Your task to perform on an android device: Search for asus zenbook on bestbuy.com, select the first entry, add it to the cart, then select checkout. Image 0: 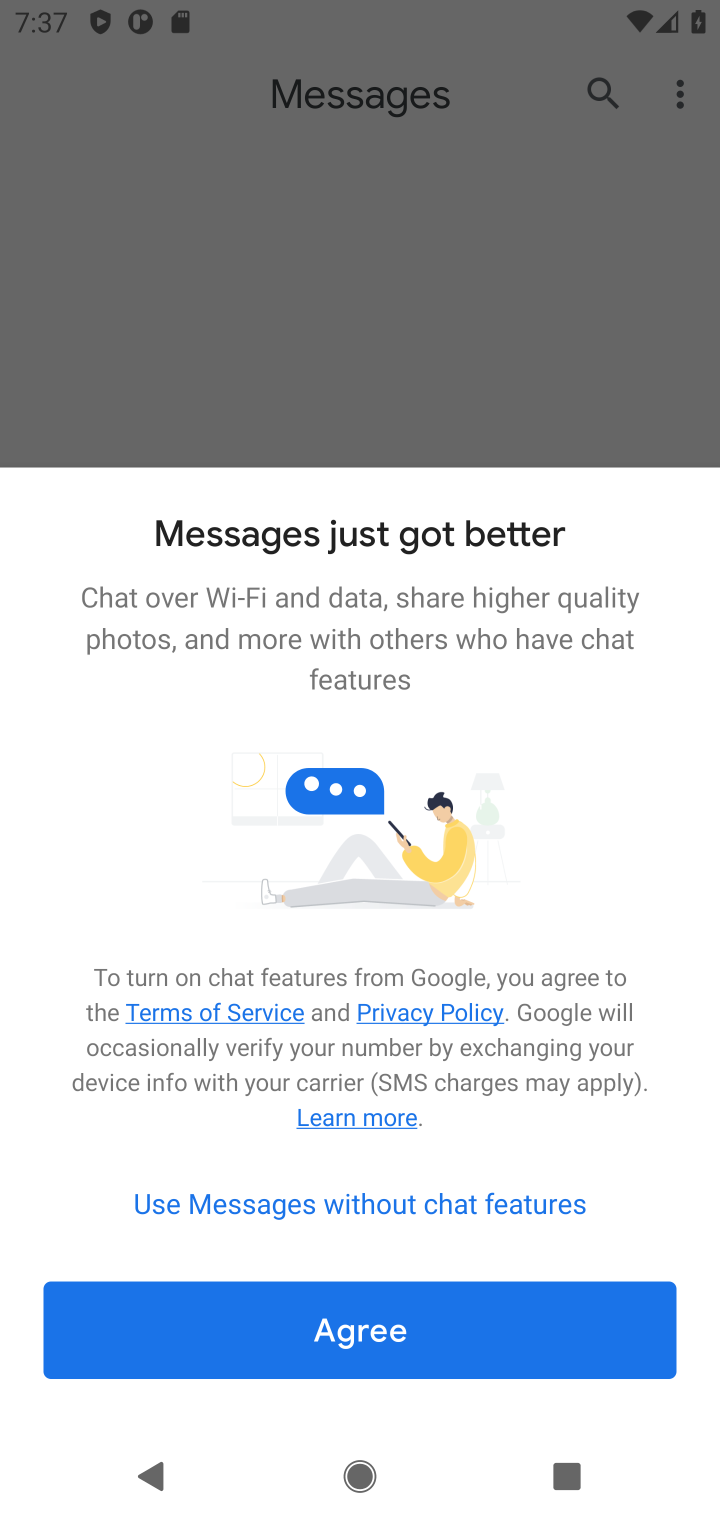
Step 0: press home button
Your task to perform on an android device: Search for asus zenbook on bestbuy.com, select the first entry, add it to the cart, then select checkout. Image 1: 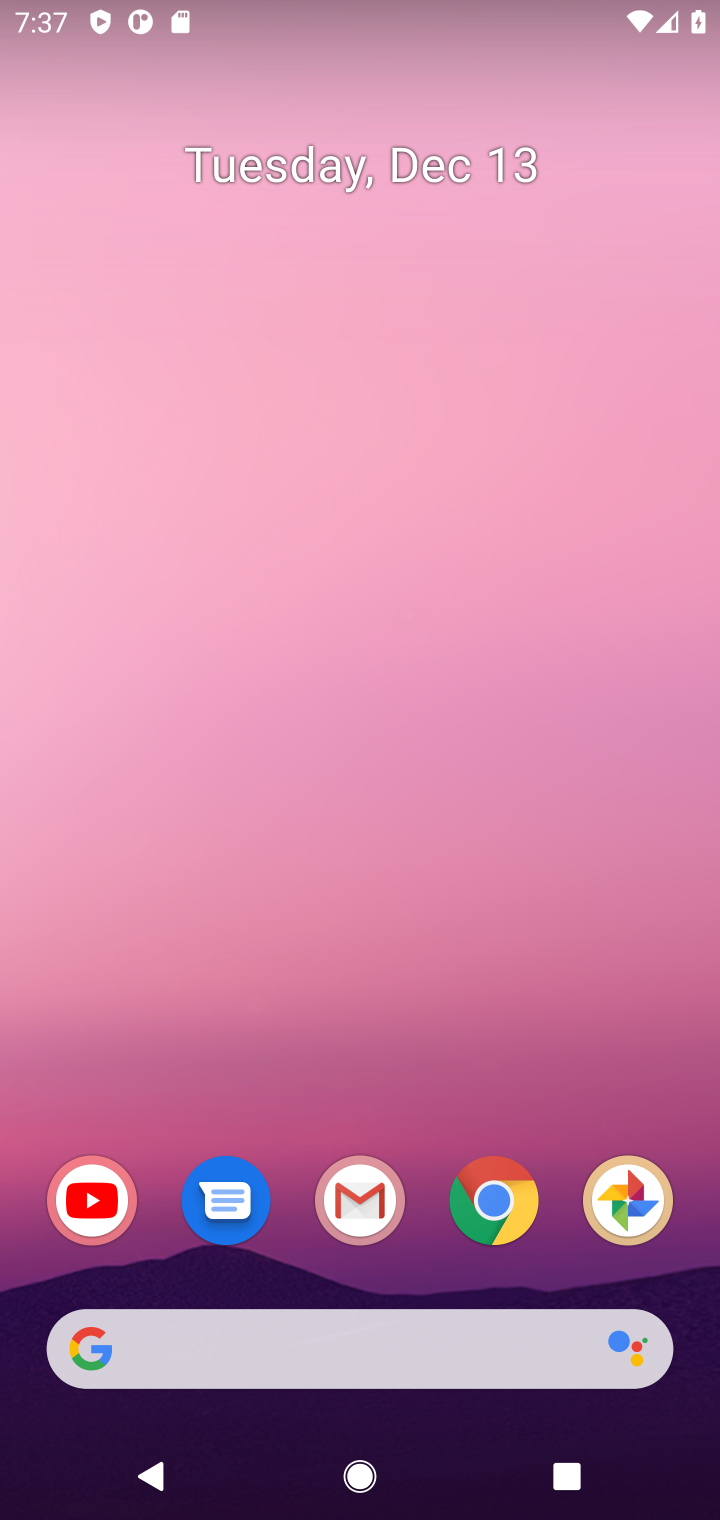
Step 1: click (361, 1329)
Your task to perform on an android device: Search for asus zenbook on bestbuy.com, select the first entry, add it to the cart, then select checkout. Image 2: 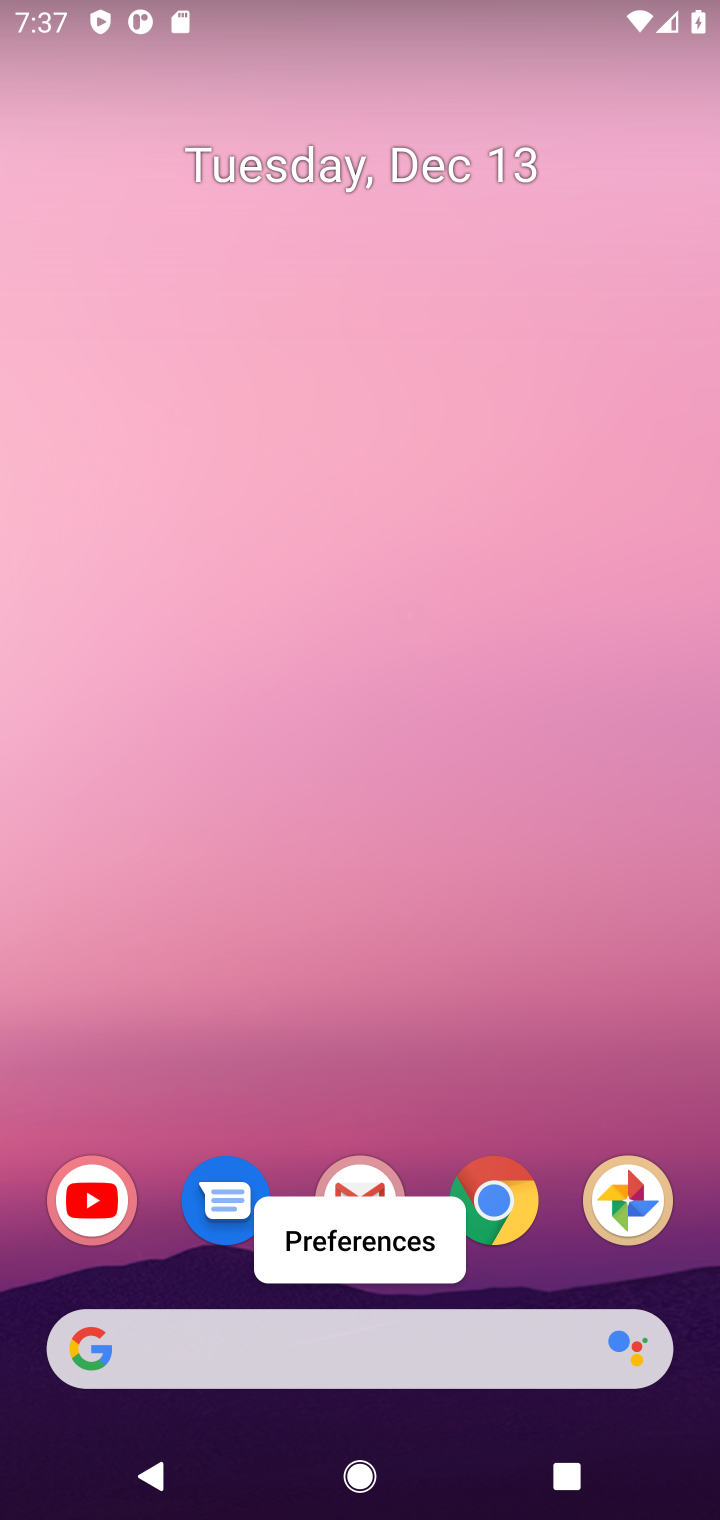
Step 2: click (317, 1343)
Your task to perform on an android device: Search for asus zenbook on bestbuy.com, select the first entry, add it to the cart, then select checkout. Image 3: 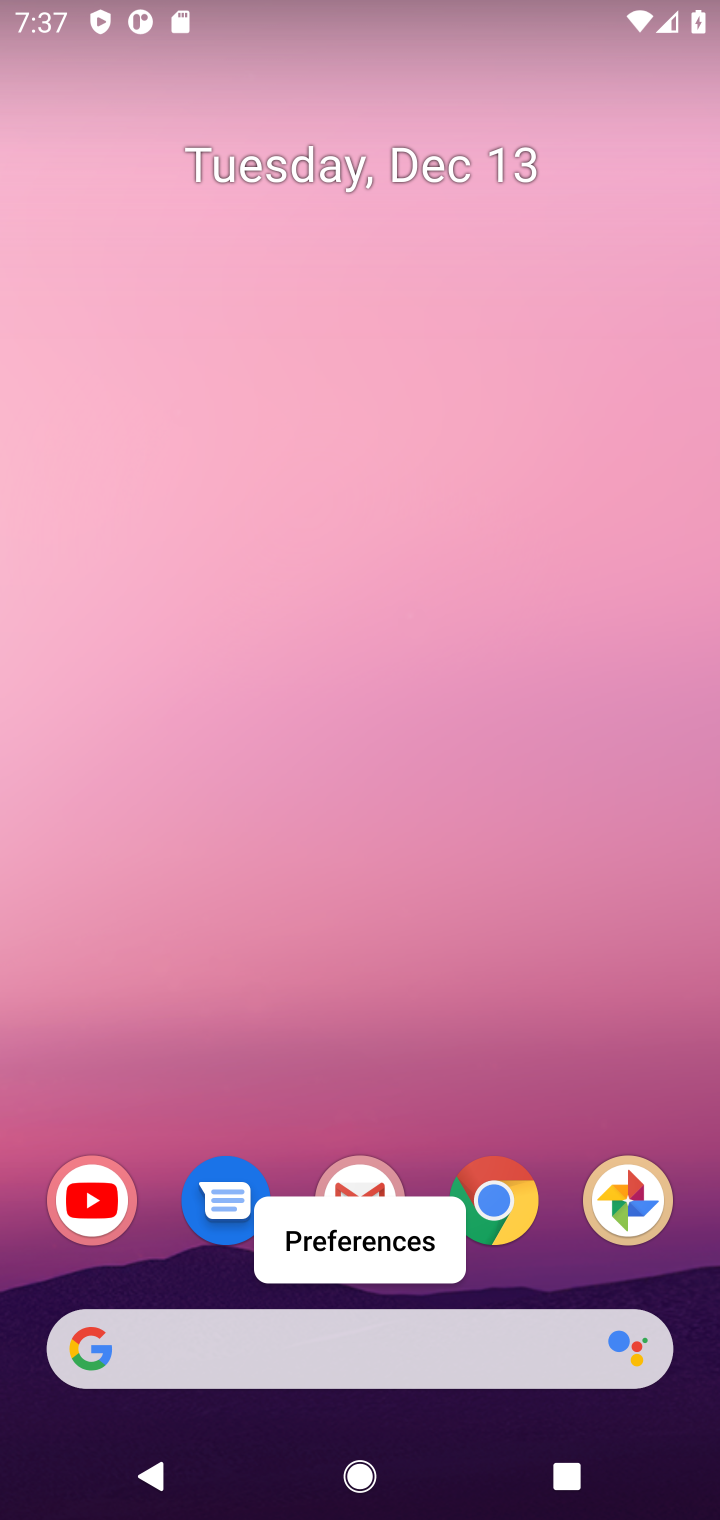
Step 3: click (297, 1354)
Your task to perform on an android device: Search for asus zenbook on bestbuy.com, select the first entry, add it to the cart, then select checkout. Image 4: 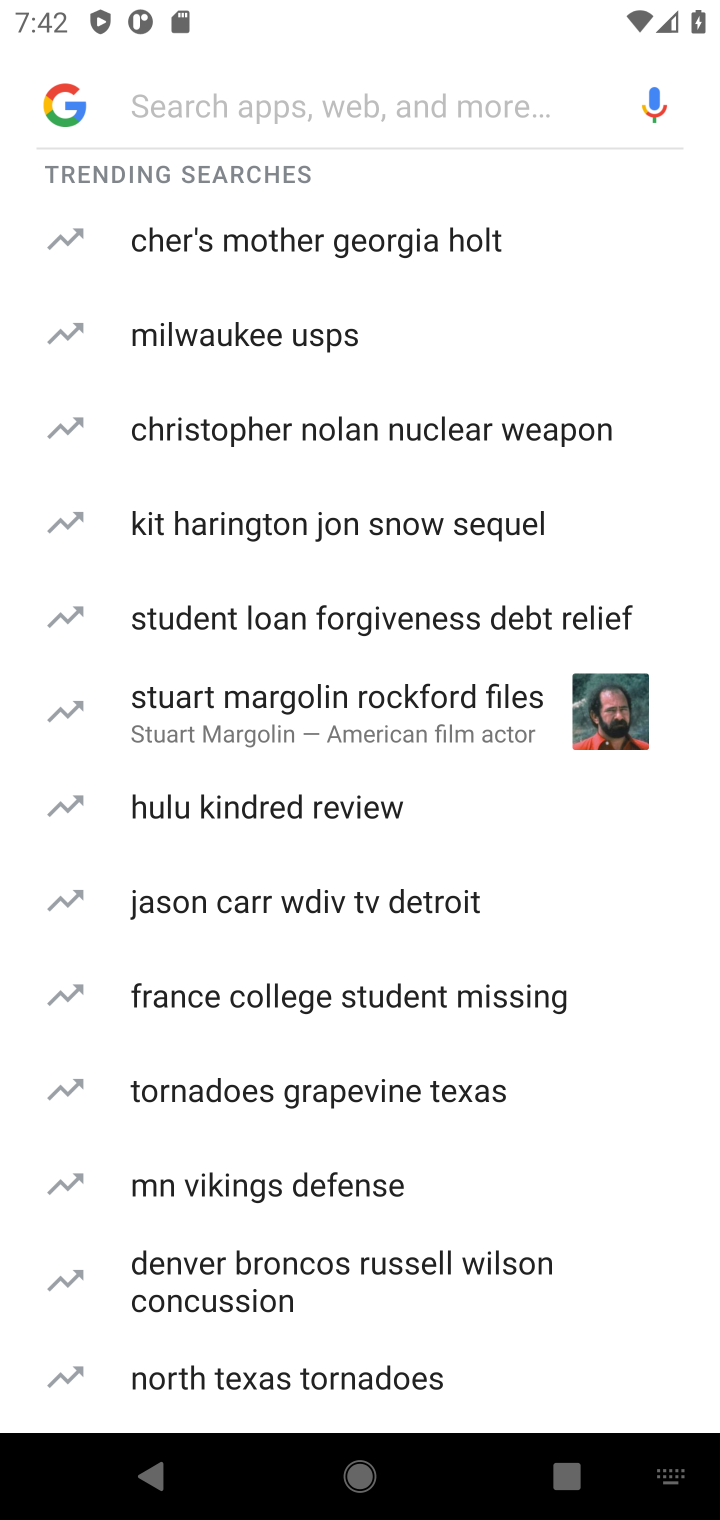
Step 4: type "bestbuy.com"
Your task to perform on an android device: Search for asus zenbook on bestbuy.com, select the first entry, add it to the cart, then select checkout. Image 5: 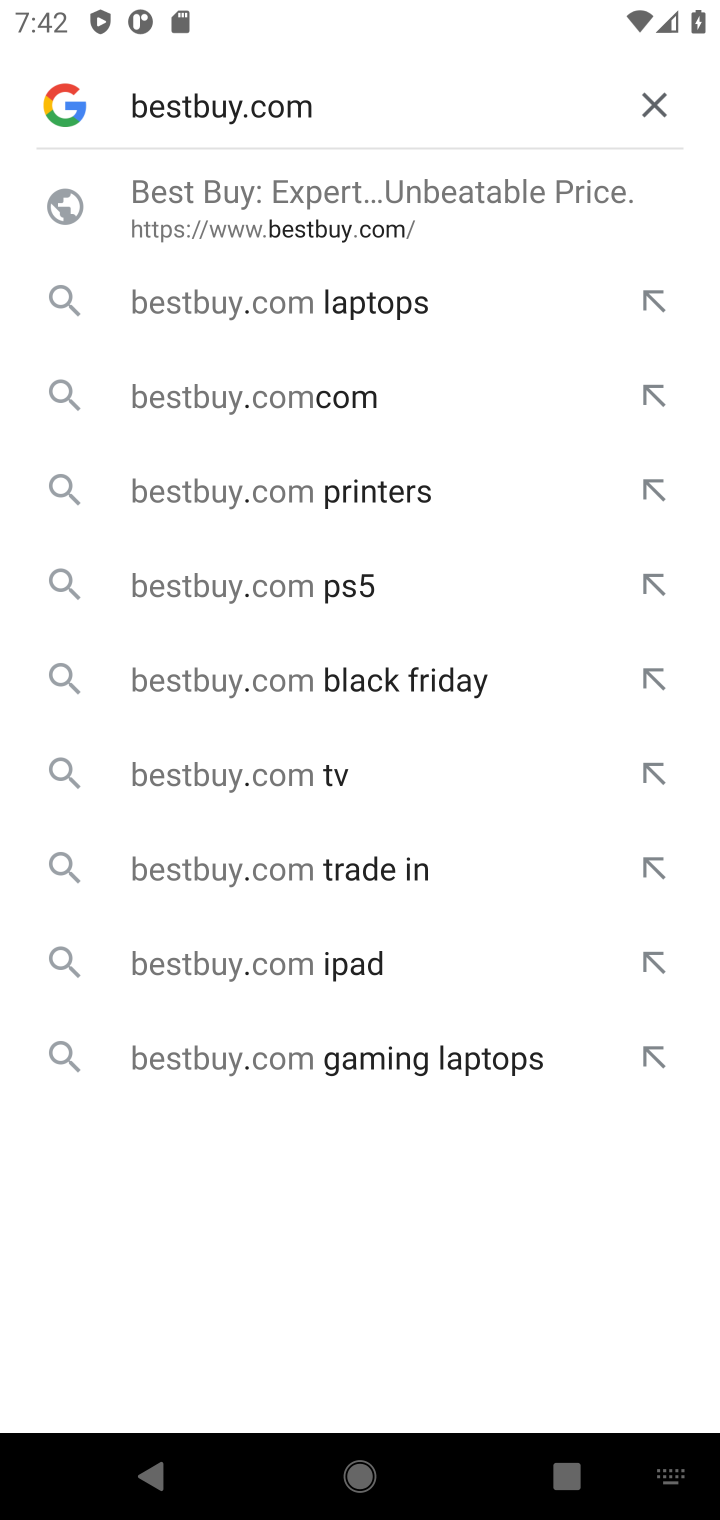
Step 5: click (292, 203)
Your task to perform on an android device: Search for asus zenbook on bestbuy.com, select the first entry, add it to the cart, then select checkout. Image 6: 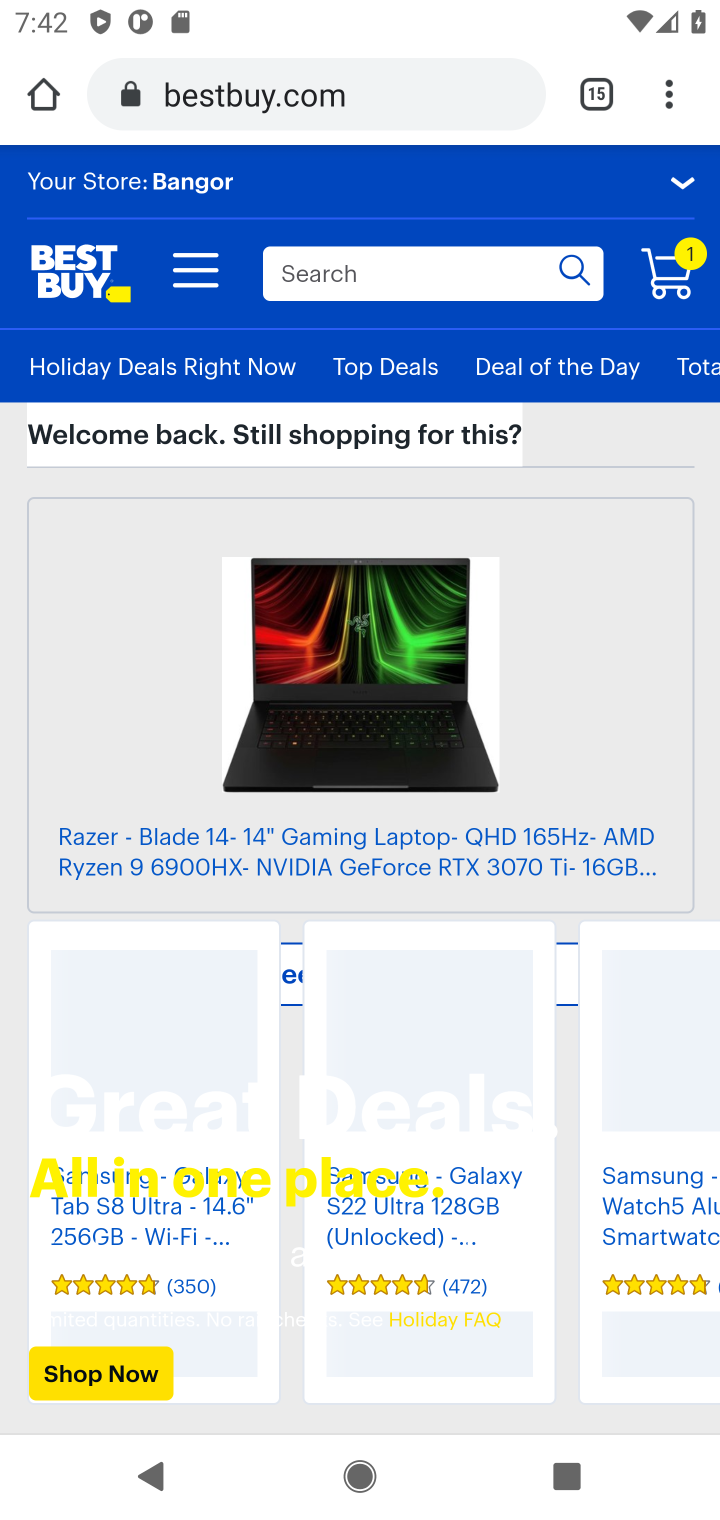
Step 6: click (511, 278)
Your task to perform on an android device: Search for asus zenbook on bestbuy.com, select the first entry, add it to the cart, then select checkout. Image 7: 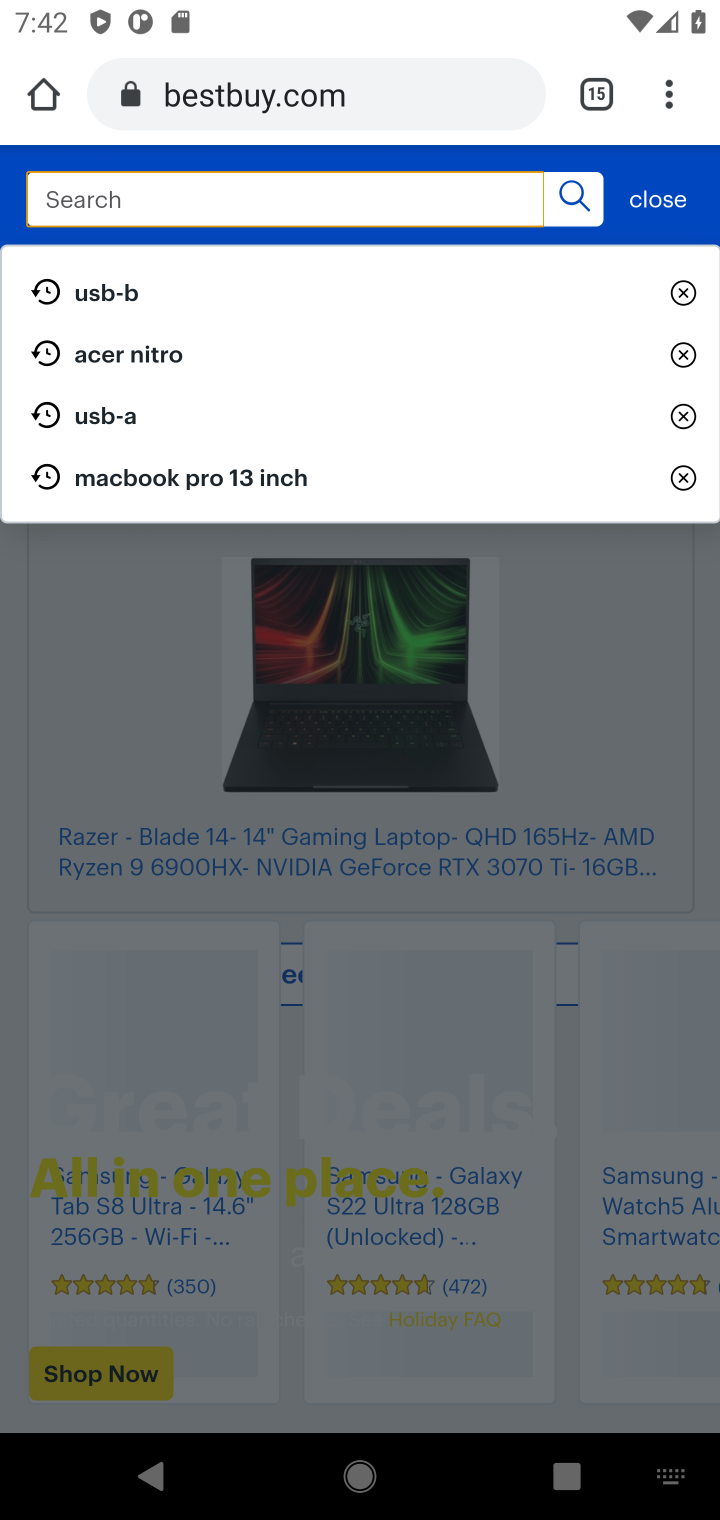
Step 7: type "asus zenbook"
Your task to perform on an android device: Search for asus zenbook on bestbuy.com, select the first entry, add it to the cart, then select checkout. Image 8: 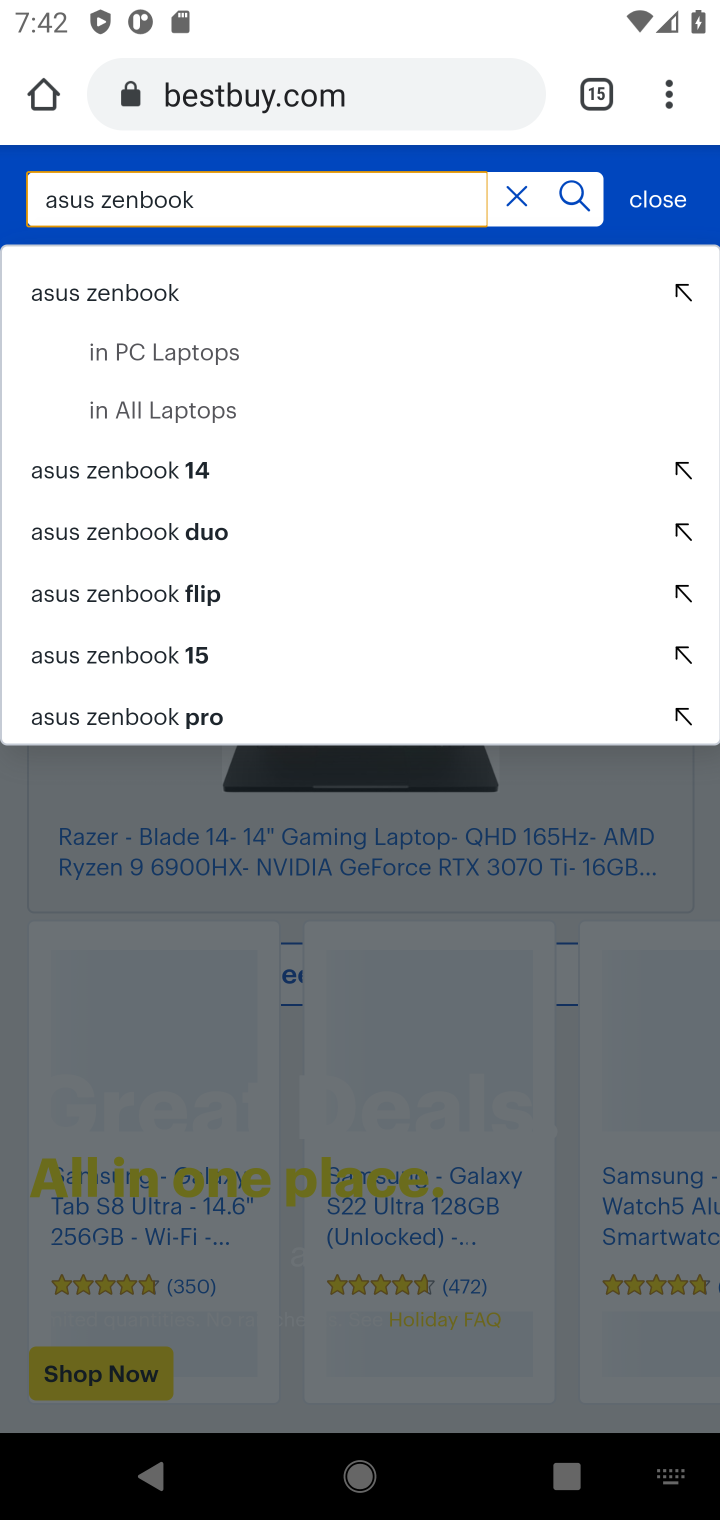
Step 8: click (111, 281)
Your task to perform on an android device: Search for asus zenbook on bestbuy.com, select the first entry, add it to the cart, then select checkout. Image 9: 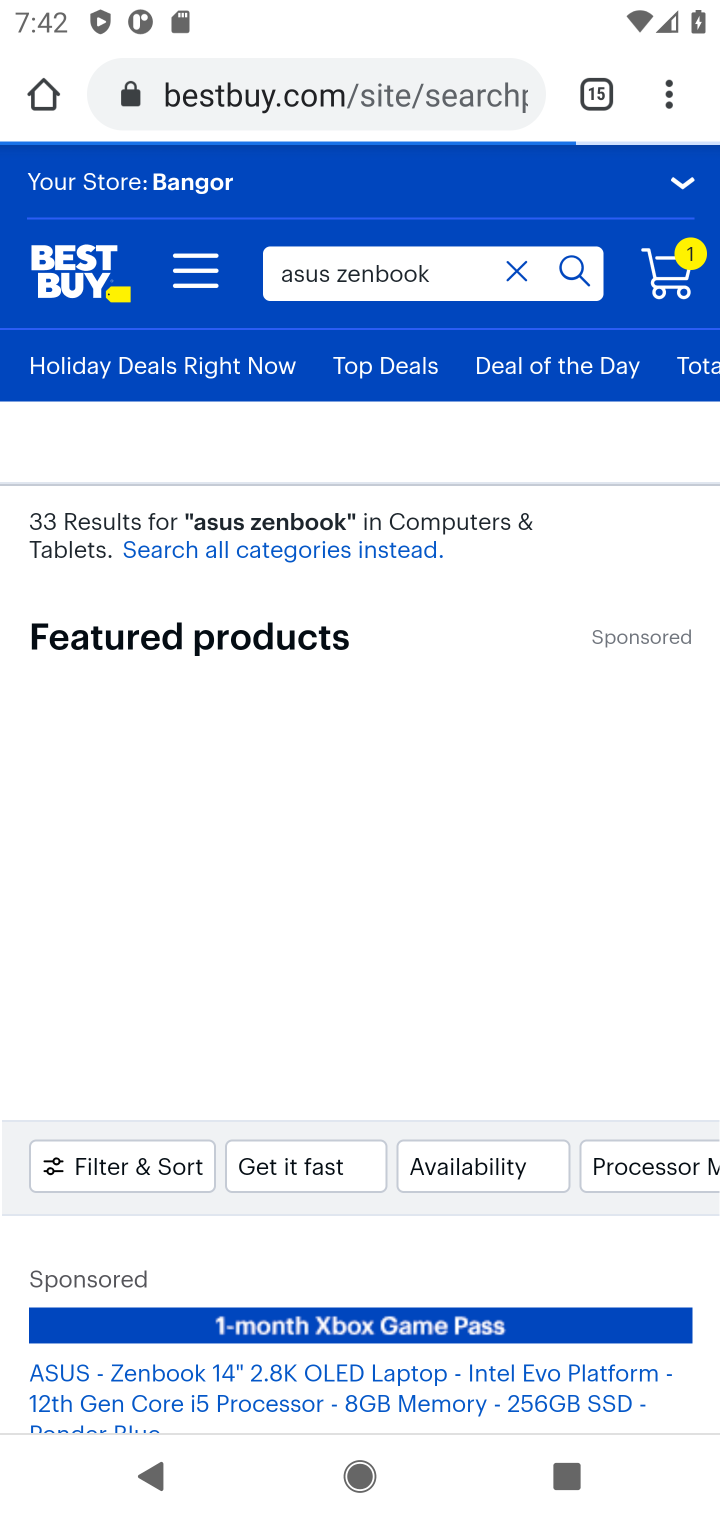
Step 9: click (581, 191)
Your task to perform on an android device: Search for asus zenbook on bestbuy.com, select the first entry, add it to the cart, then select checkout. Image 10: 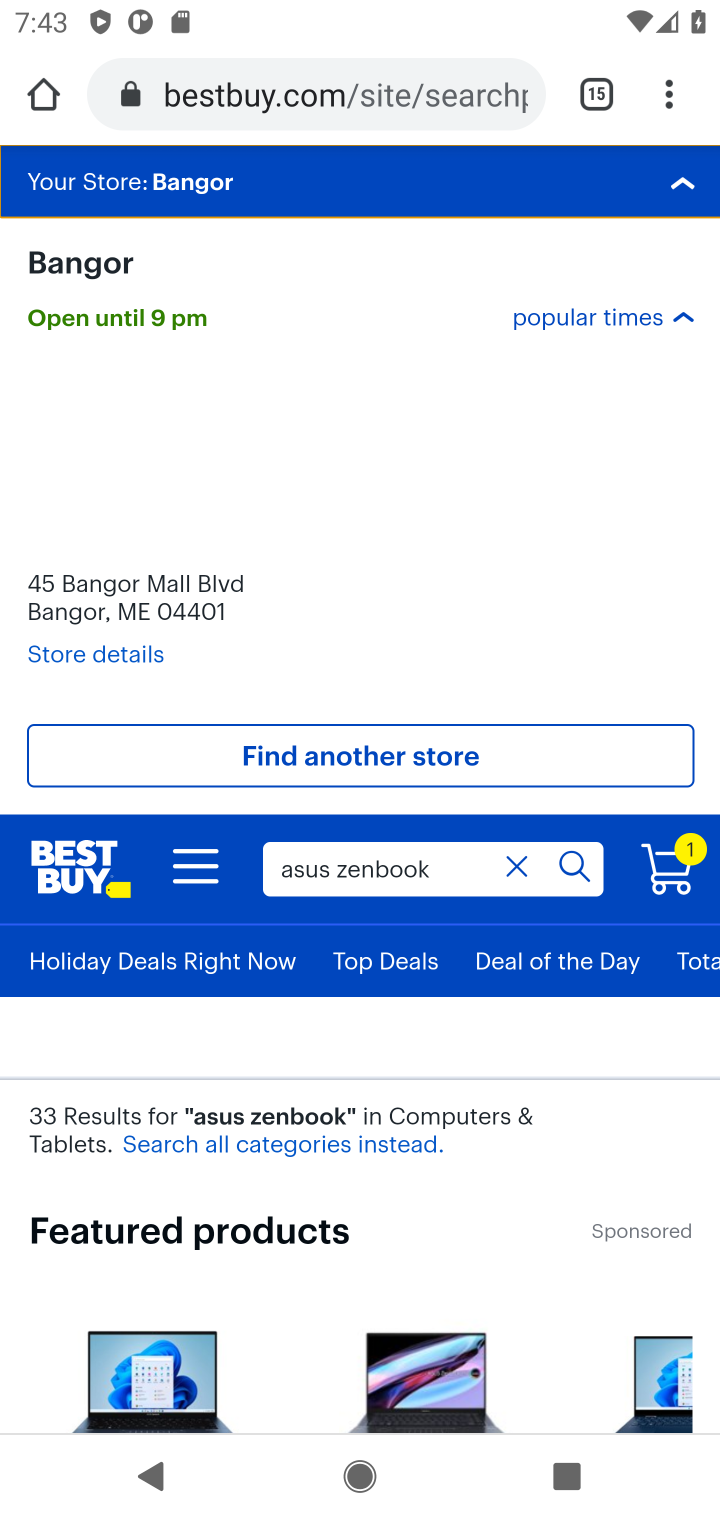
Step 10: click (106, 1351)
Your task to perform on an android device: Search for asus zenbook on bestbuy.com, select the first entry, add it to the cart, then select checkout. Image 11: 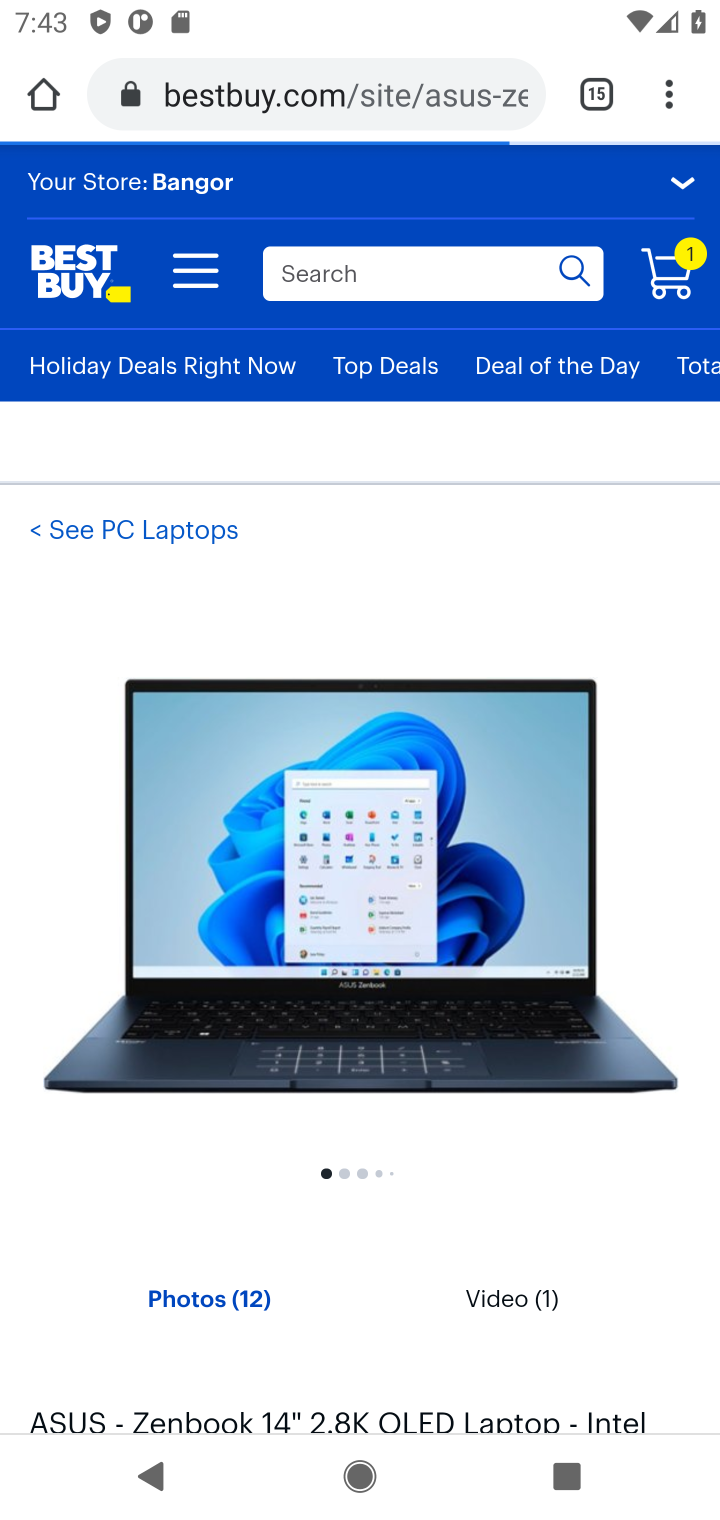
Step 11: click (269, 1316)
Your task to perform on an android device: Search for asus zenbook on bestbuy.com, select the first entry, add it to the cart, then select checkout. Image 12: 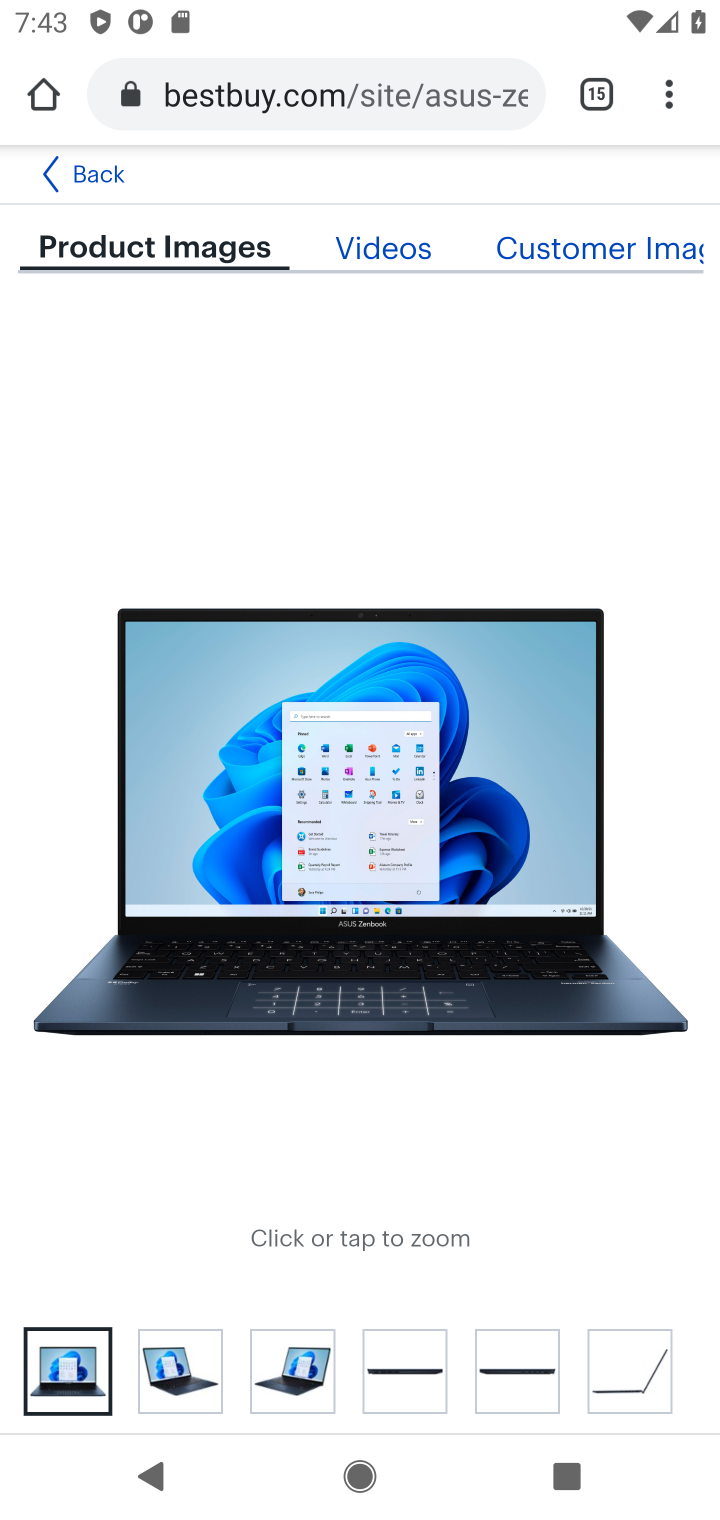
Step 12: click (63, 169)
Your task to perform on an android device: Search for asus zenbook on bestbuy.com, select the first entry, add it to the cart, then select checkout. Image 13: 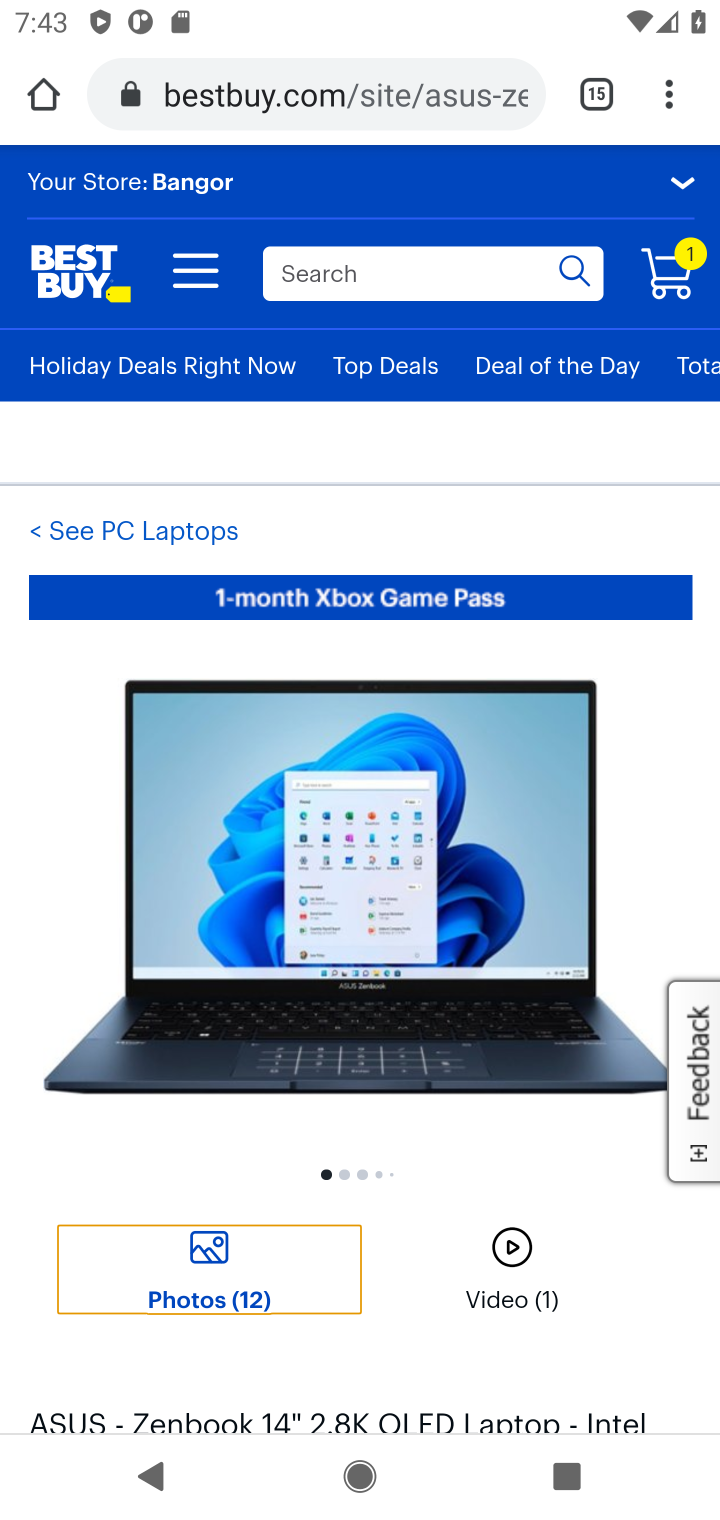
Step 13: drag from (383, 1034) to (343, 450)
Your task to perform on an android device: Search for asus zenbook on bestbuy.com, select the first entry, add it to the cart, then select checkout. Image 14: 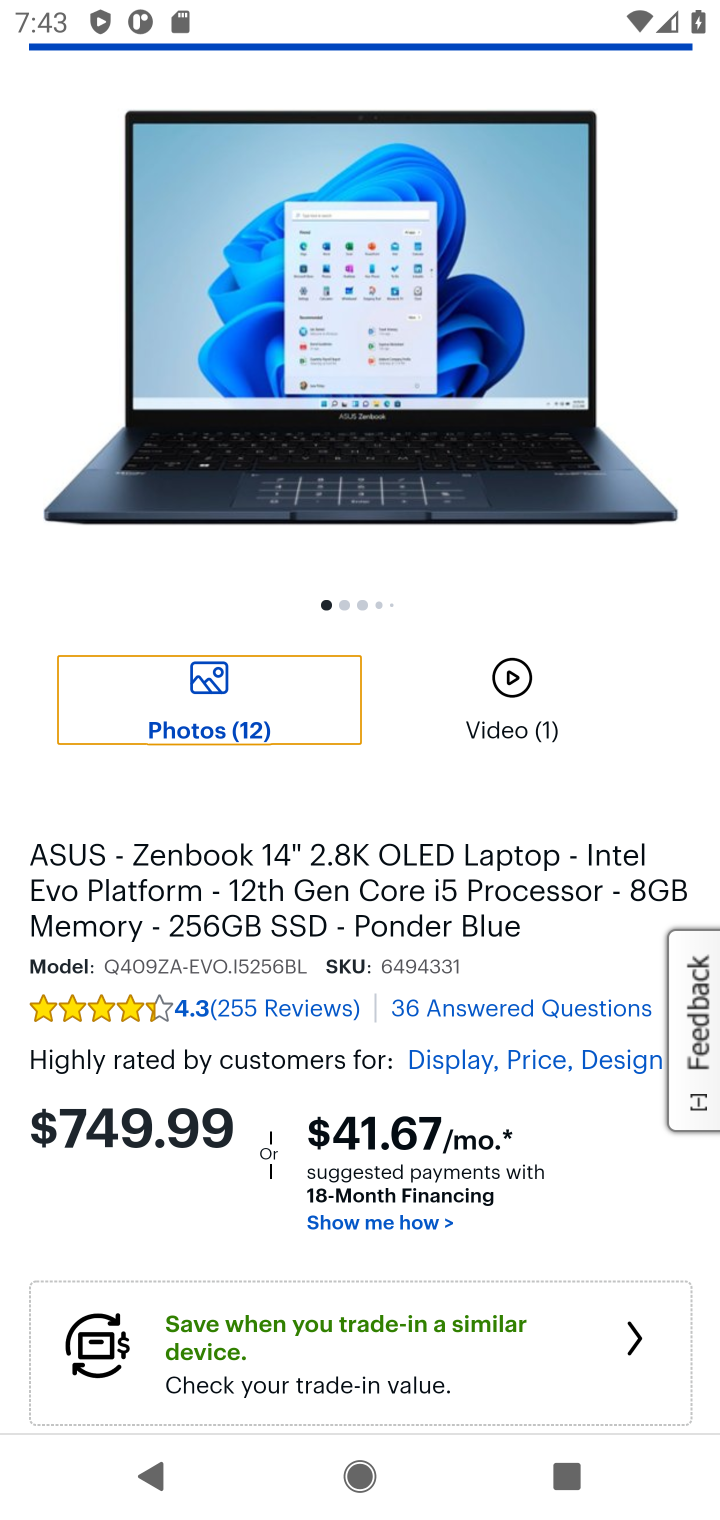
Step 14: drag from (553, 1249) to (415, 581)
Your task to perform on an android device: Search for asus zenbook on bestbuy.com, select the first entry, add it to the cart, then select checkout. Image 15: 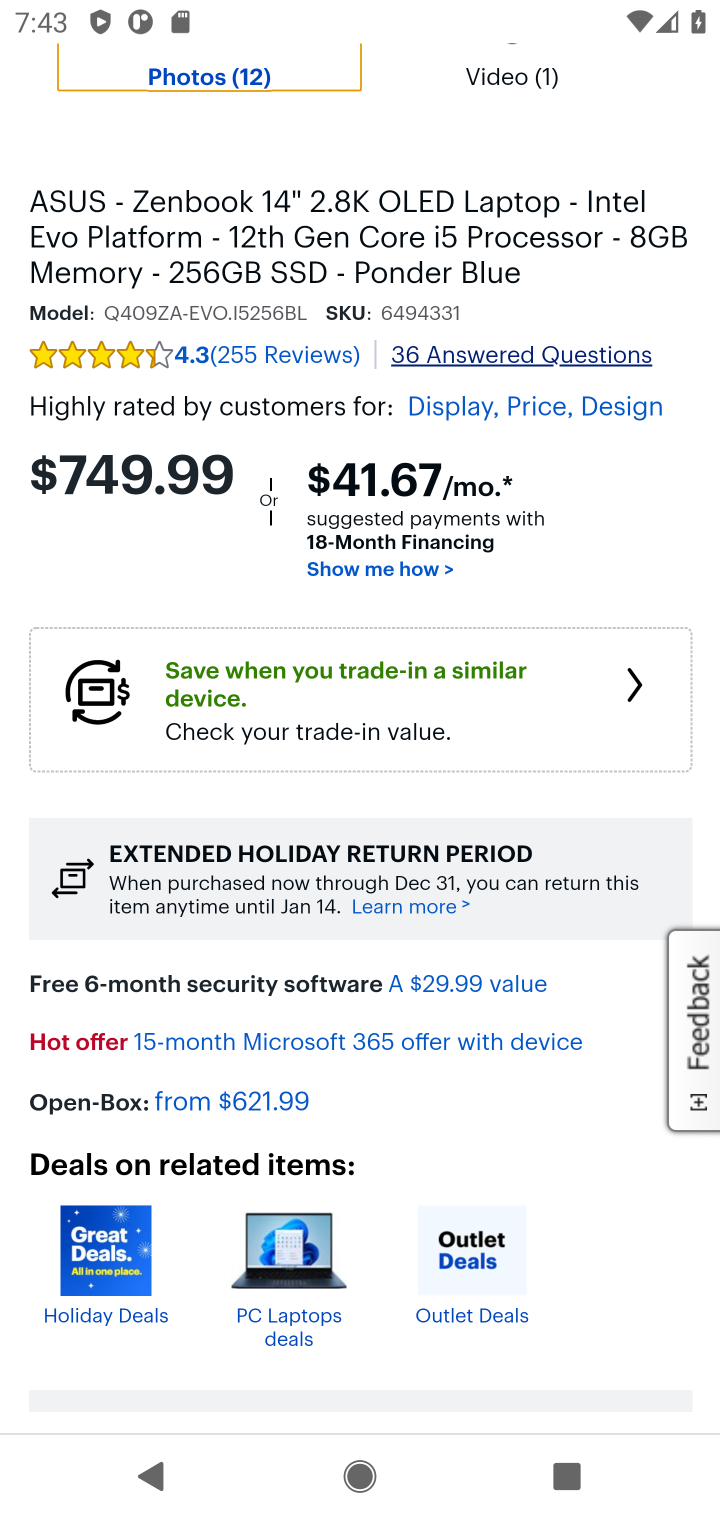
Step 15: drag from (519, 1073) to (476, 769)
Your task to perform on an android device: Search for asus zenbook on bestbuy.com, select the first entry, add it to the cart, then select checkout. Image 16: 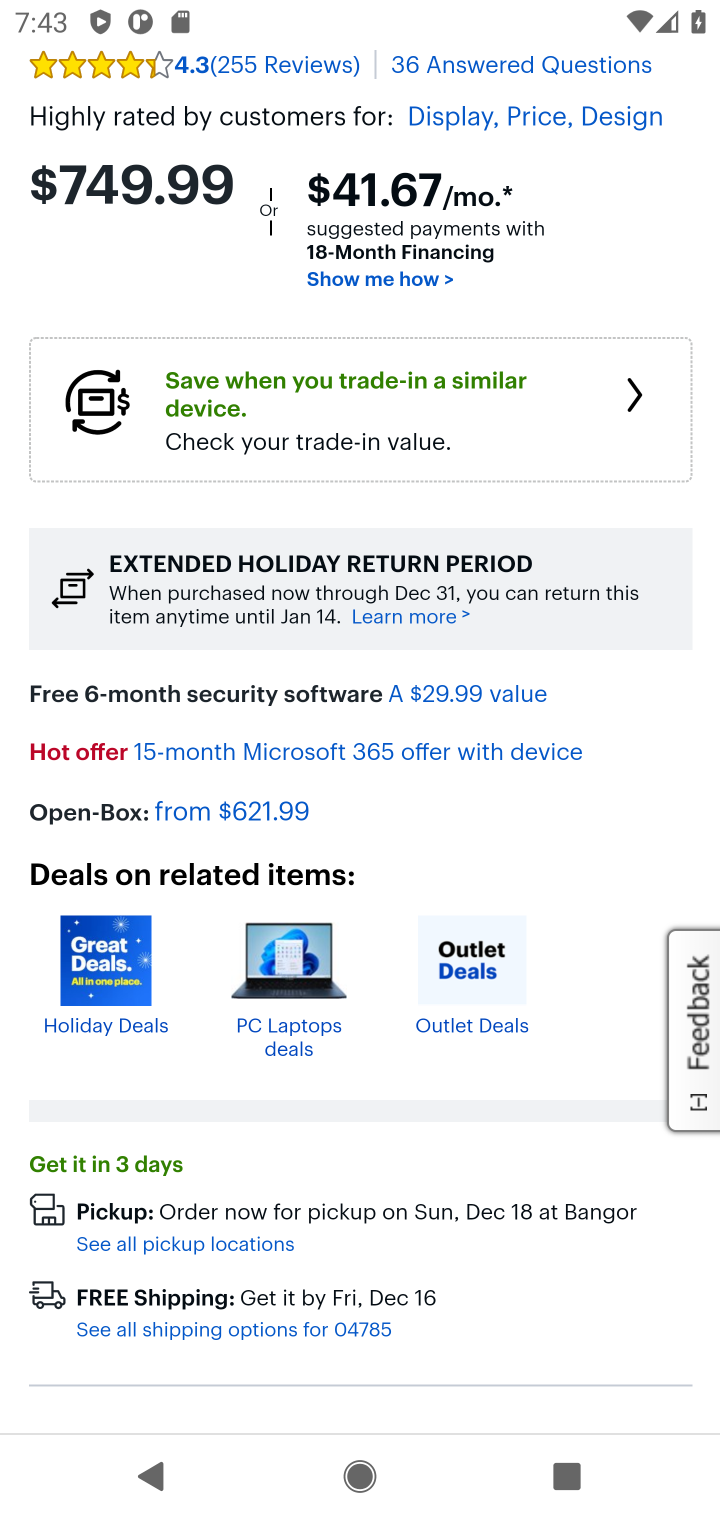
Step 16: drag from (436, 1041) to (389, 587)
Your task to perform on an android device: Search for asus zenbook on bestbuy.com, select the first entry, add it to the cart, then select checkout. Image 17: 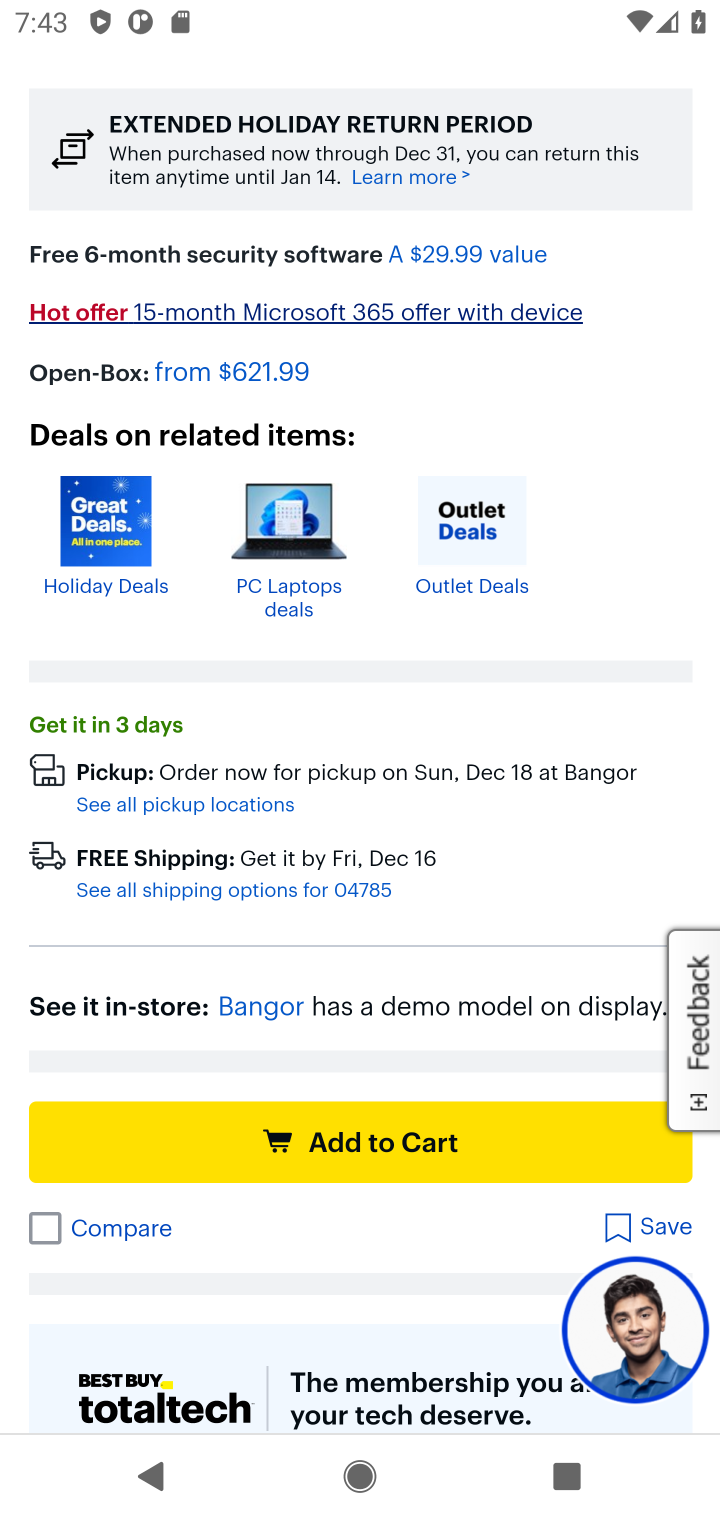
Step 17: click (341, 1123)
Your task to perform on an android device: Search for asus zenbook on bestbuy.com, select the first entry, add it to the cart, then select checkout. Image 18: 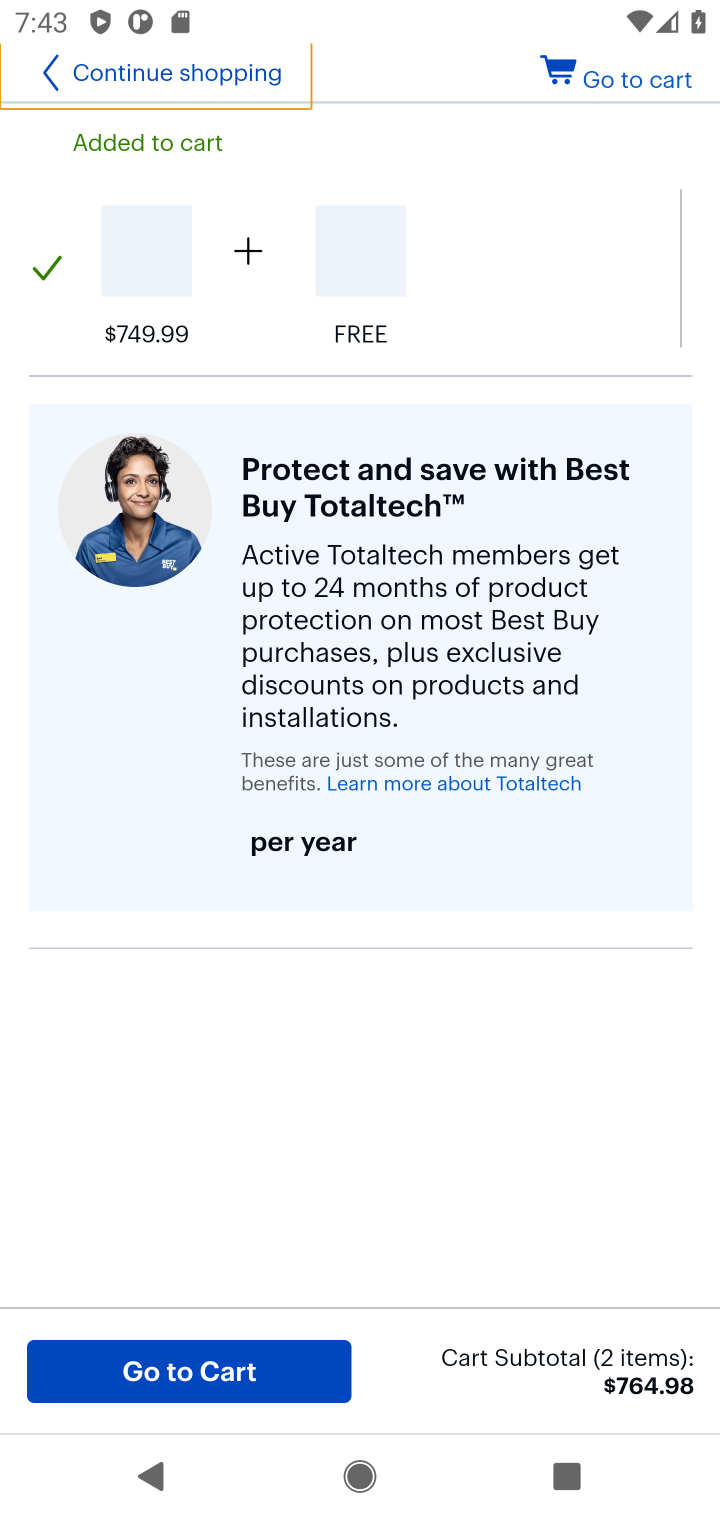
Step 18: drag from (601, 604) to (599, 1244)
Your task to perform on an android device: Search for asus zenbook on bestbuy.com, select the first entry, add it to the cart, then select checkout. Image 19: 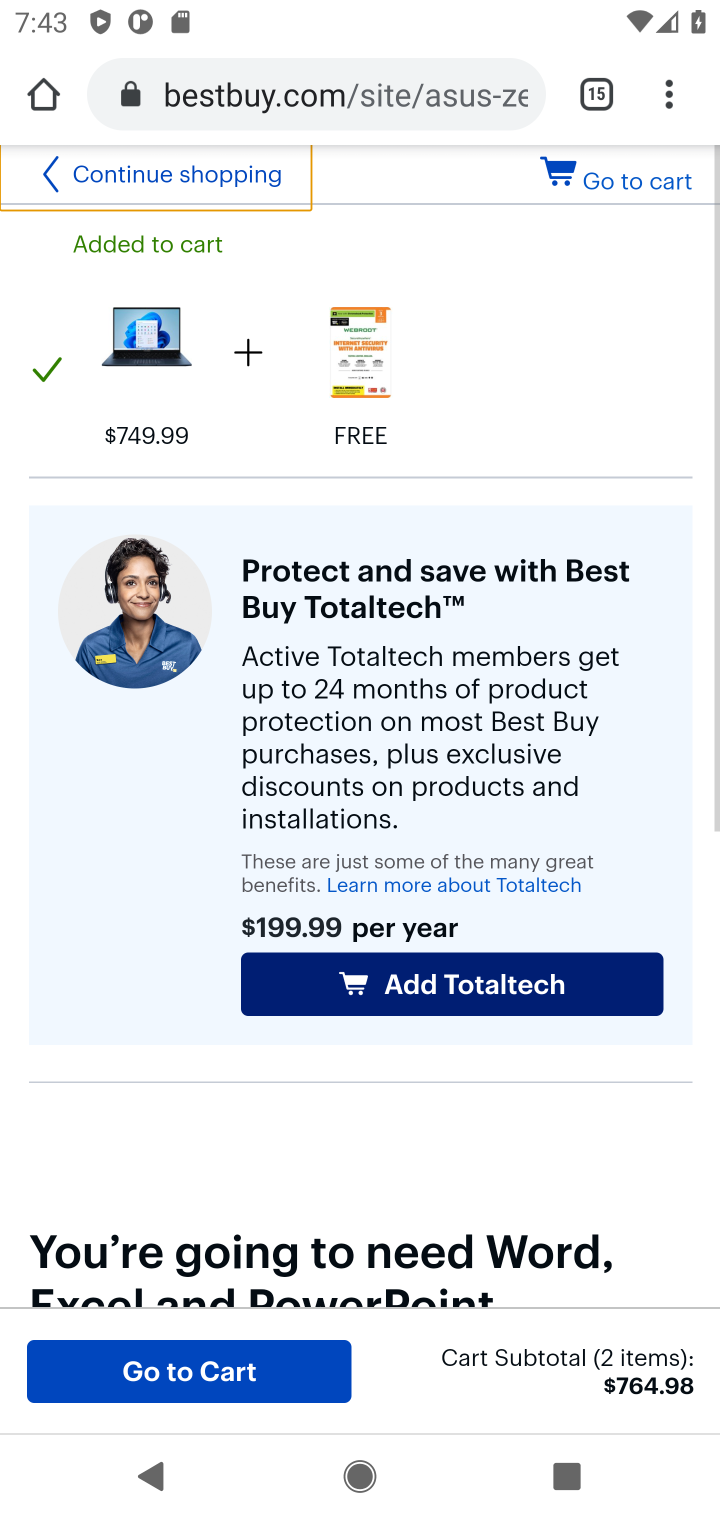
Step 19: click (211, 1372)
Your task to perform on an android device: Search for asus zenbook on bestbuy.com, select the first entry, add it to the cart, then select checkout. Image 20: 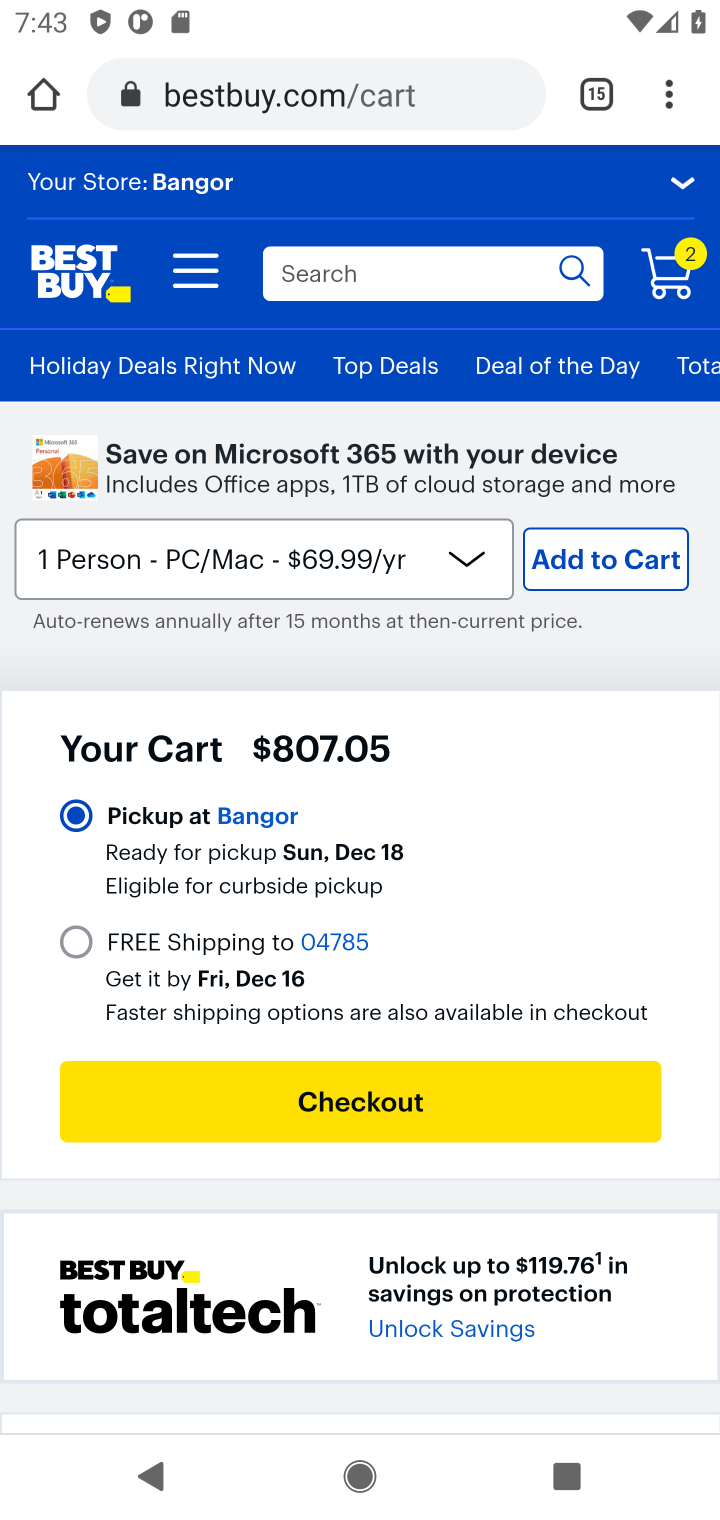
Step 20: click (392, 1103)
Your task to perform on an android device: Search for asus zenbook on bestbuy.com, select the first entry, add it to the cart, then select checkout. Image 21: 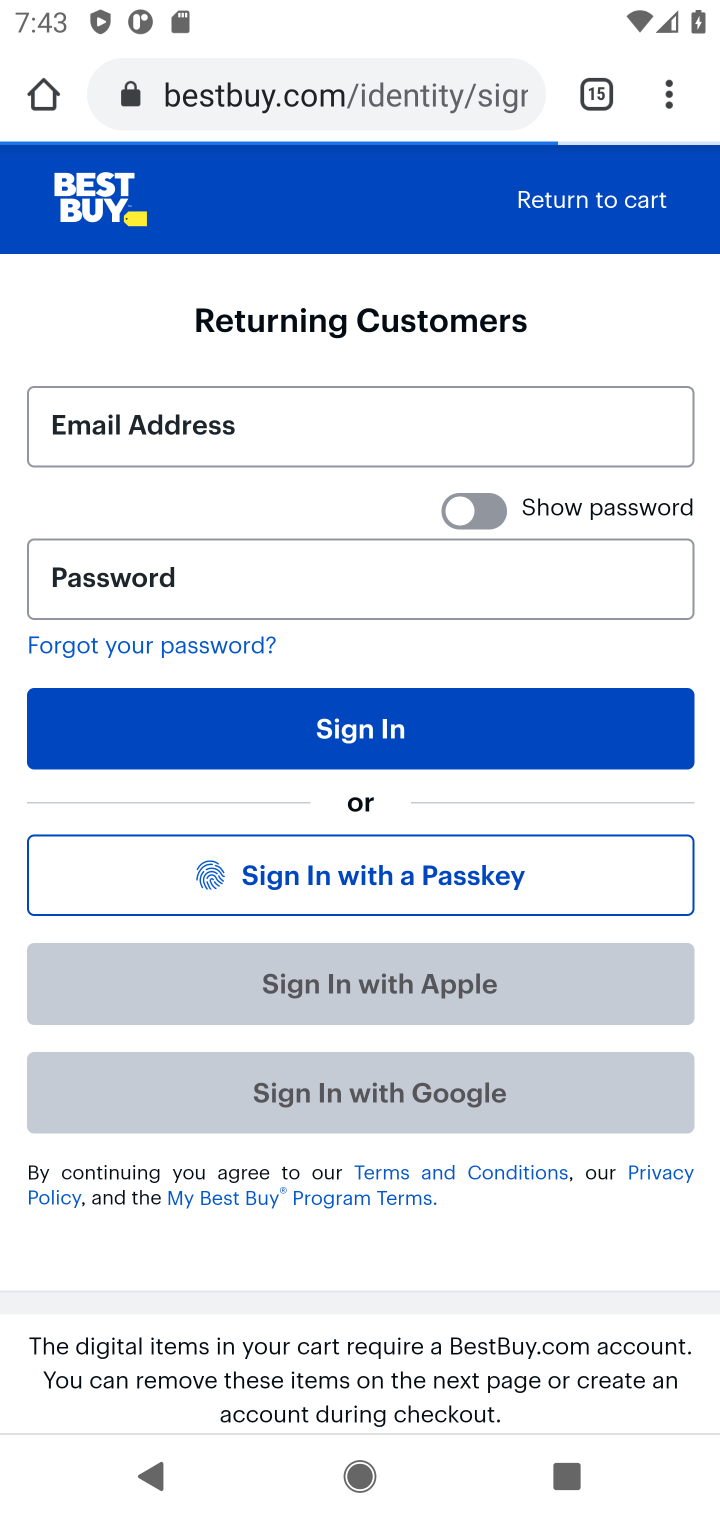
Step 21: task complete